Your task to perform on an android device: Go to display settings Image 0: 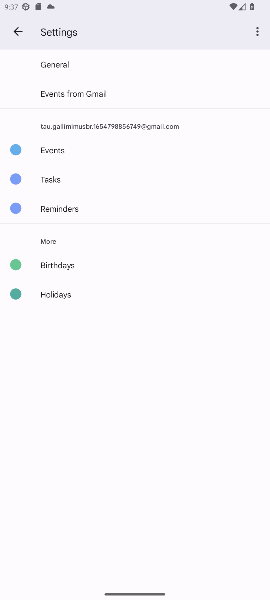
Step 0: press home button
Your task to perform on an android device: Go to display settings Image 1: 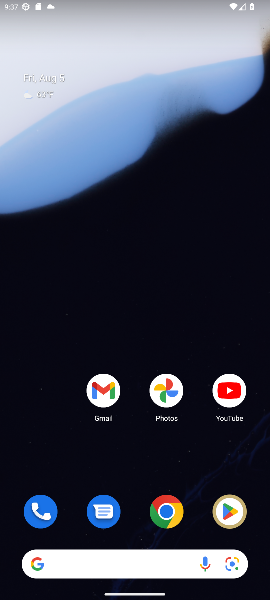
Step 1: drag from (131, 557) to (165, 296)
Your task to perform on an android device: Go to display settings Image 2: 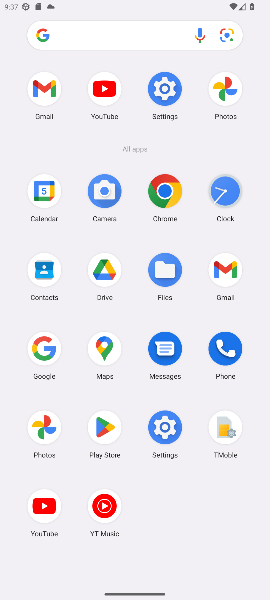
Step 2: click (165, 89)
Your task to perform on an android device: Go to display settings Image 3: 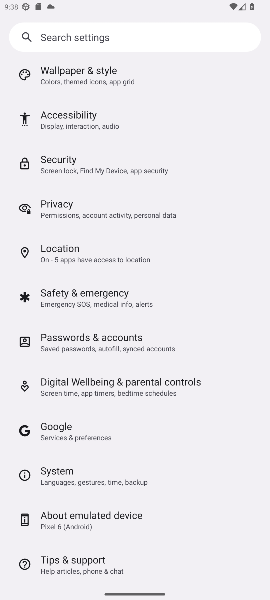
Step 3: drag from (108, 211) to (120, 406)
Your task to perform on an android device: Go to display settings Image 4: 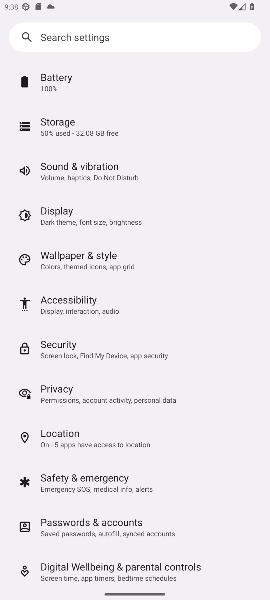
Step 4: click (71, 220)
Your task to perform on an android device: Go to display settings Image 5: 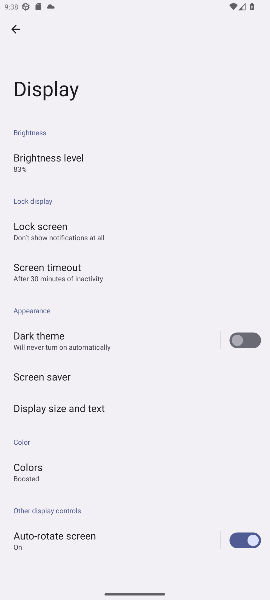
Step 5: task complete